Your task to perform on an android device: Open Google Chrome and click the shortcut for Amazon.com Image 0: 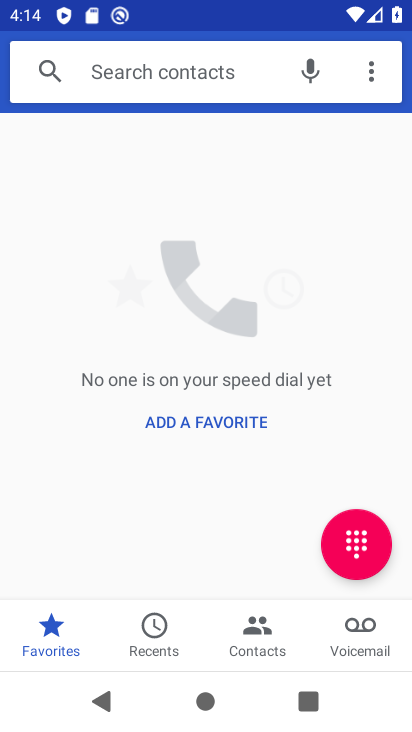
Step 0: press home button
Your task to perform on an android device: Open Google Chrome and click the shortcut for Amazon.com Image 1: 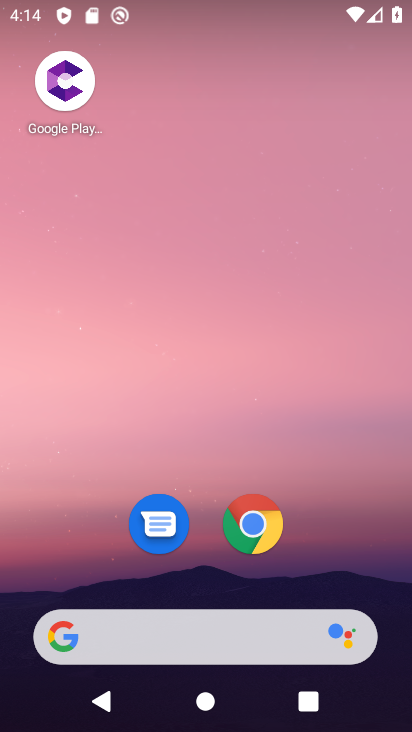
Step 1: click (258, 516)
Your task to perform on an android device: Open Google Chrome and click the shortcut for Amazon.com Image 2: 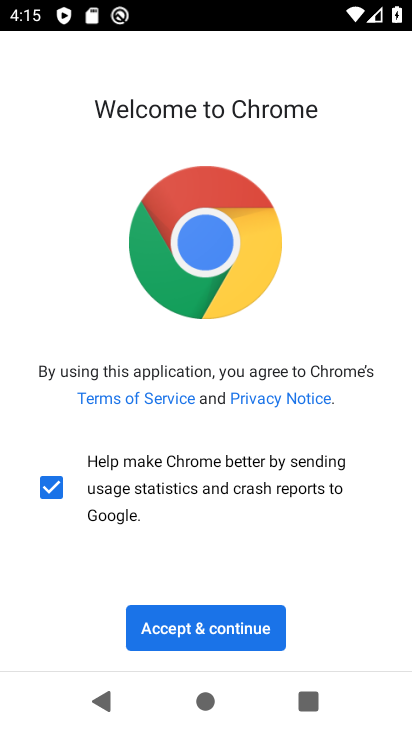
Step 2: click (263, 627)
Your task to perform on an android device: Open Google Chrome and click the shortcut for Amazon.com Image 3: 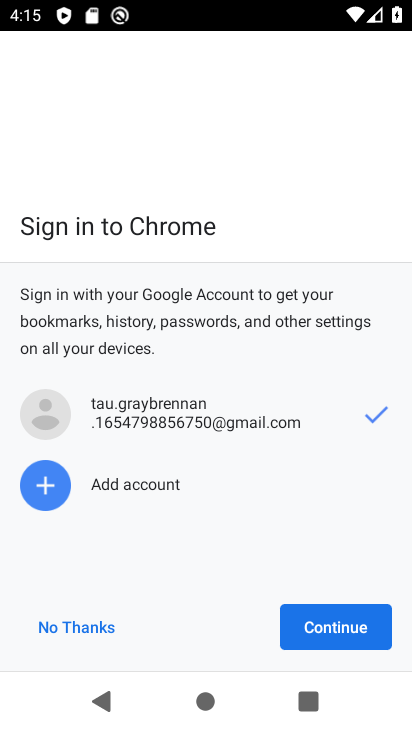
Step 3: click (327, 631)
Your task to perform on an android device: Open Google Chrome and click the shortcut for Amazon.com Image 4: 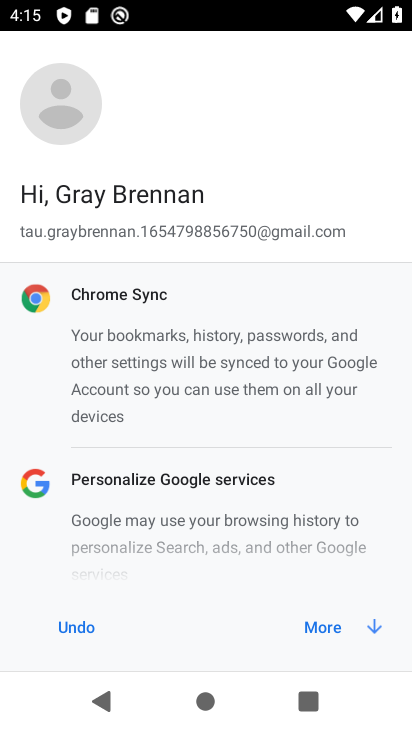
Step 4: click (330, 623)
Your task to perform on an android device: Open Google Chrome and click the shortcut for Amazon.com Image 5: 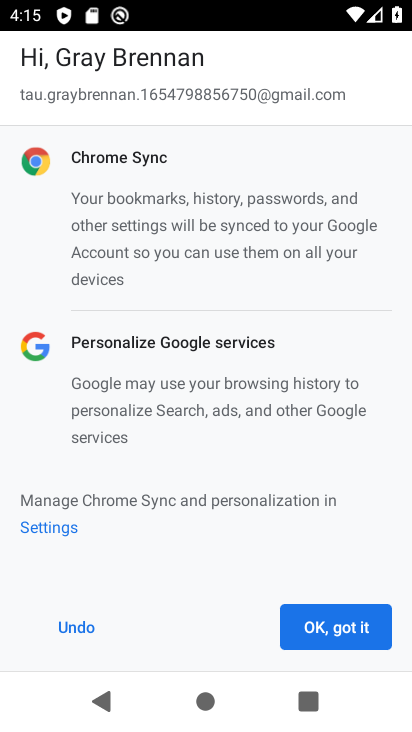
Step 5: click (330, 625)
Your task to perform on an android device: Open Google Chrome and click the shortcut for Amazon.com Image 6: 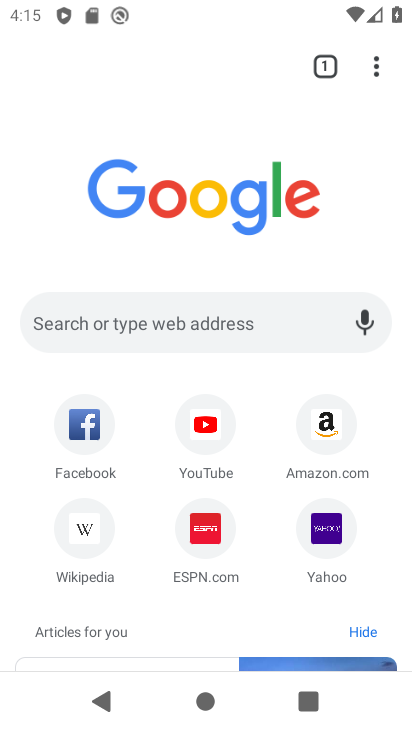
Step 6: click (339, 421)
Your task to perform on an android device: Open Google Chrome and click the shortcut for Amazon.com Image 7: 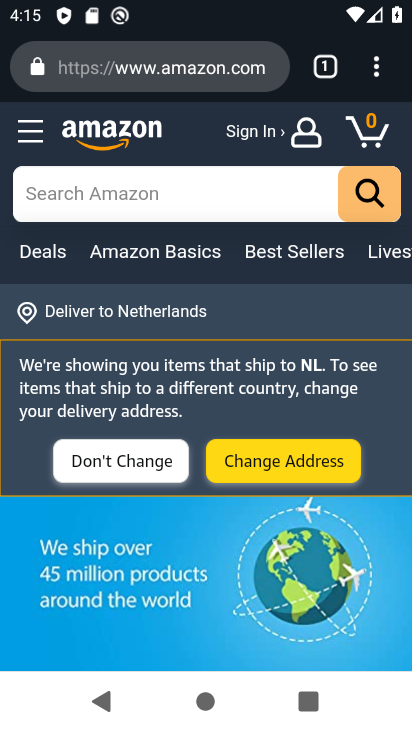
Step 7: task complete